Your task to perform on an android device: Go to network settings Image 0: 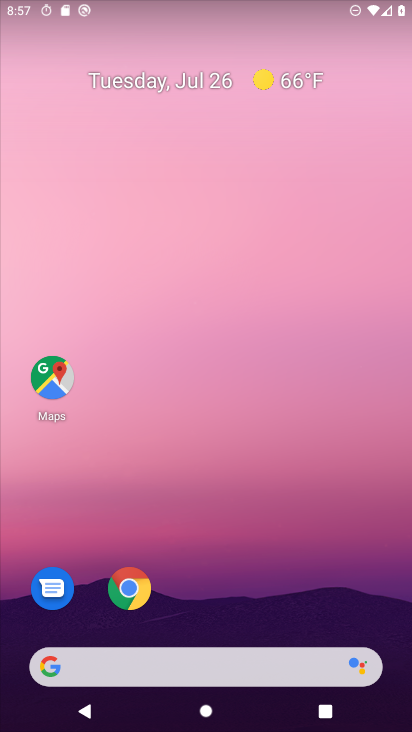
Step 0: drag from (227, 726) to (237, 168)
Your task to perform on an android device: Go to network settings Image 1: 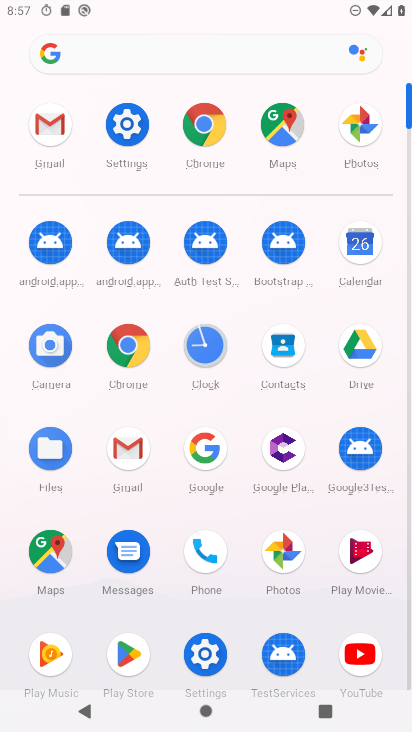
Step 1: click (128, 119)
Your task to perform on an android device: Go to network settings Image 2: 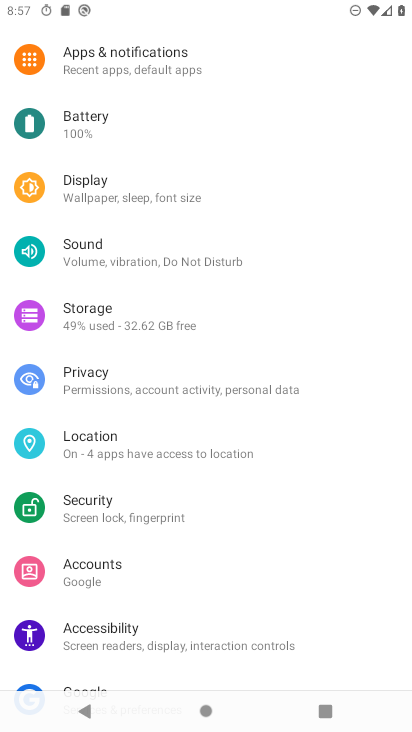
Step 2: drag from (127, 120) to (144, 550)
Your task to perform on an android device: Go to network settings Image 3: 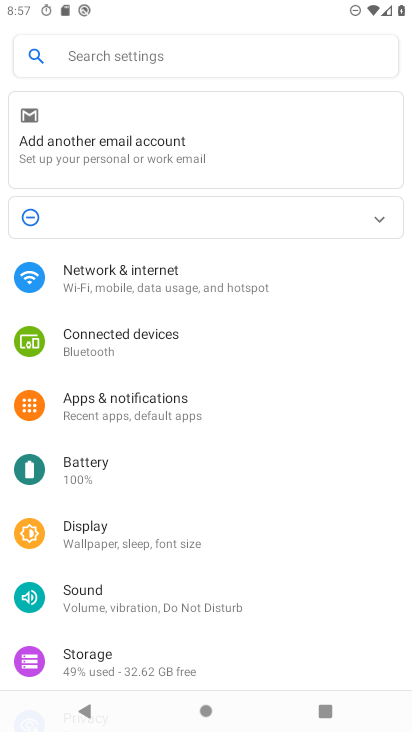
Step 3: click (135, 271)
Your task to perform on an android device: Go to network settings Image 4: 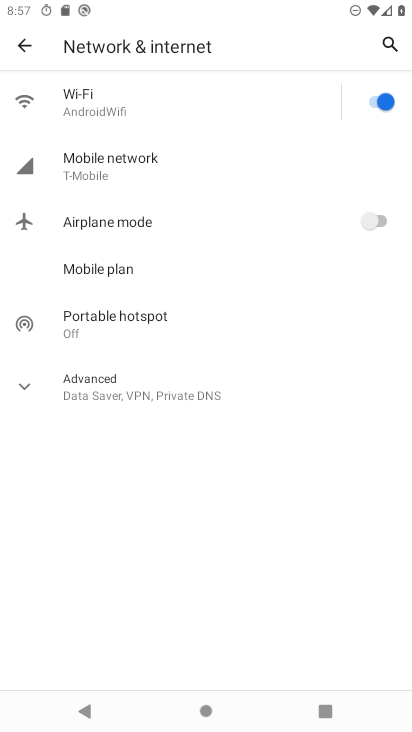
Step 4: click (85, 166)
Your task to perform on an android device: Go to network settings Image 5: 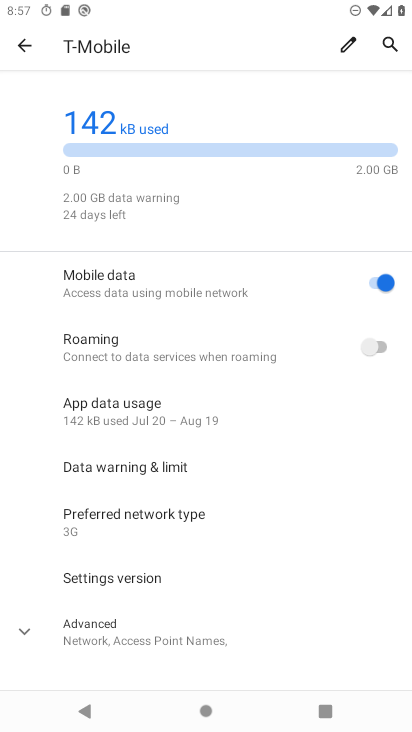
Step 5: task complete